Your task to perform on an android device: What's the weather today? Image 0: 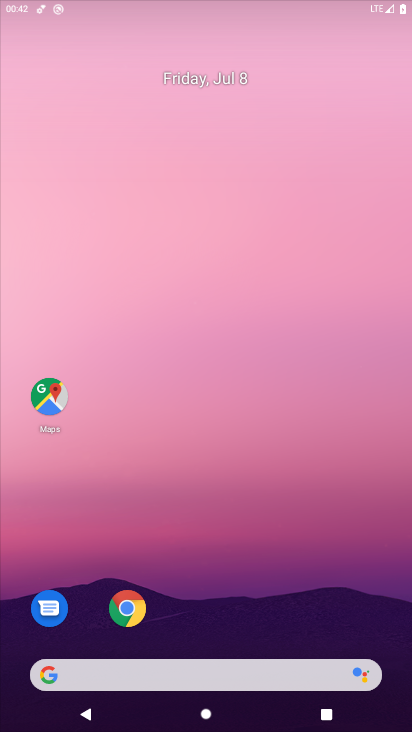
Step 0: press home button
Your task to perform on an android device: What's the weather today? Image 1: 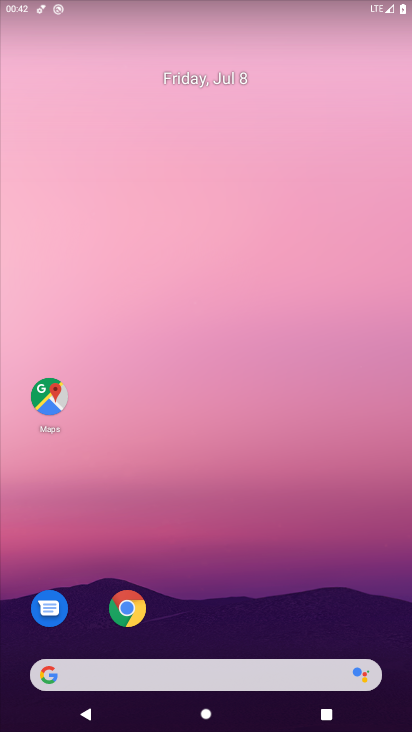
Step 1: drag from (291, 605) to (335, 137)
Your task to perform on an android device: What's the weather today? Image 2: 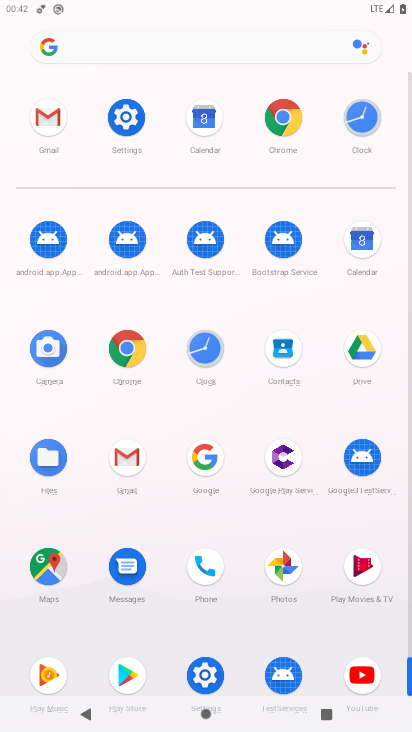
Step 2: click (294, 135)
Your task to perform on an android device: What's the weather today? Image 3: 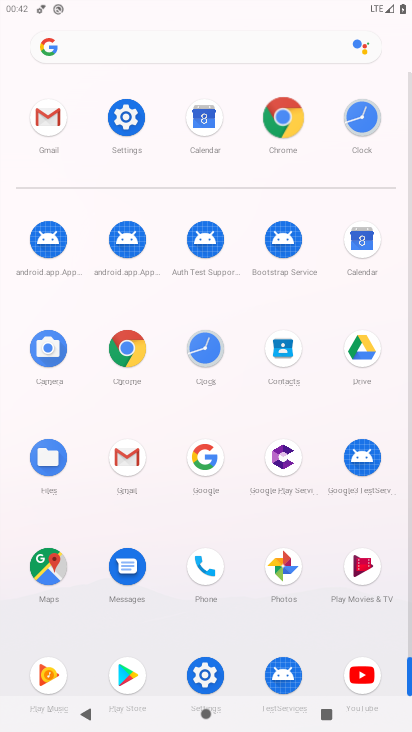
Step 3: drag from (80, 726) to (142, 730)
Your task to perform on an android device: What's the weather today? Image 4: 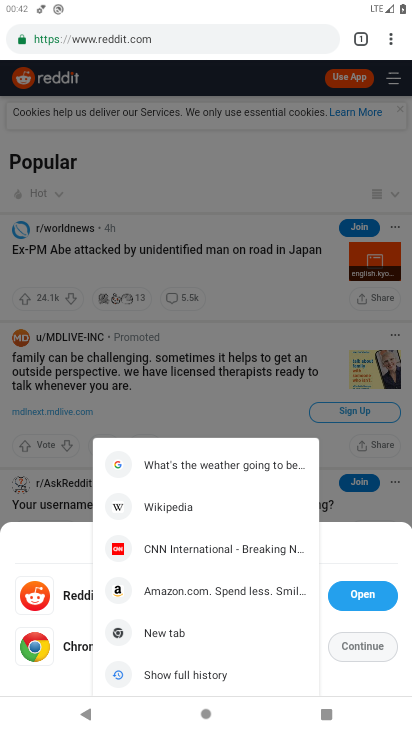
Step 4: click (17, 518)
Your task to perform on an android device: What's the weather today? Image 5: 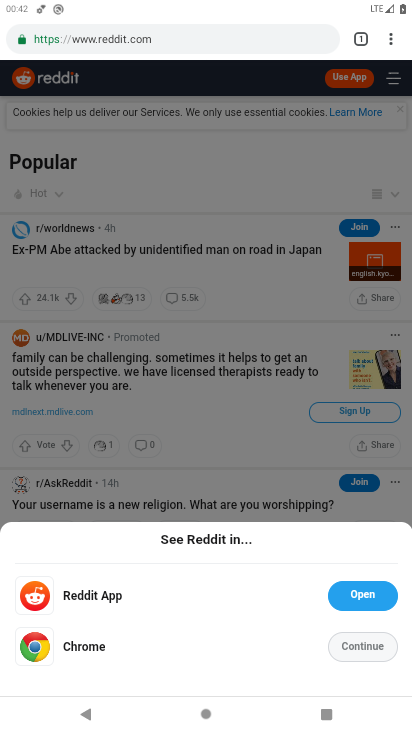
Step 5: click (187, 27)
Your task to perform on an android device: What's the weather today? Image 6: 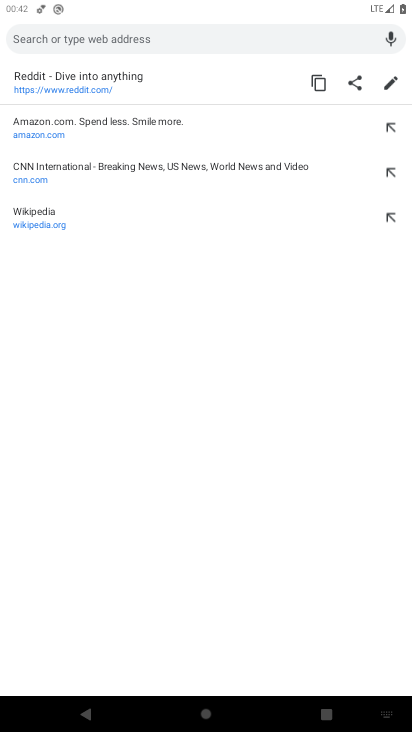
Step 6: type "What's the weather today?"
Your task to perform on an android device: What's the weather today? Image 7: 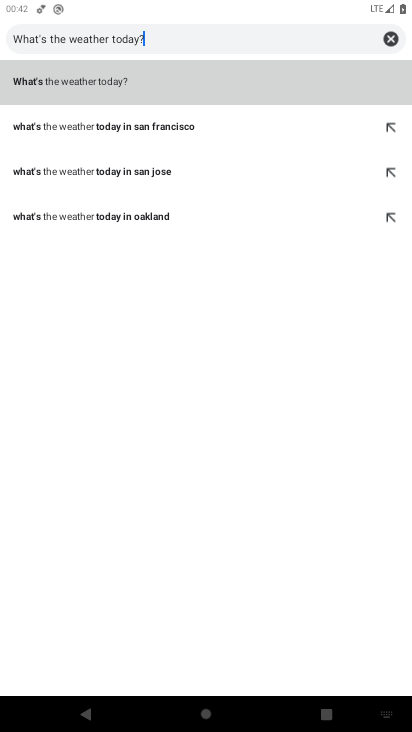
Step 7: click (384, 73)
Your task to perform on an android device: What's the weather today? Image 8: 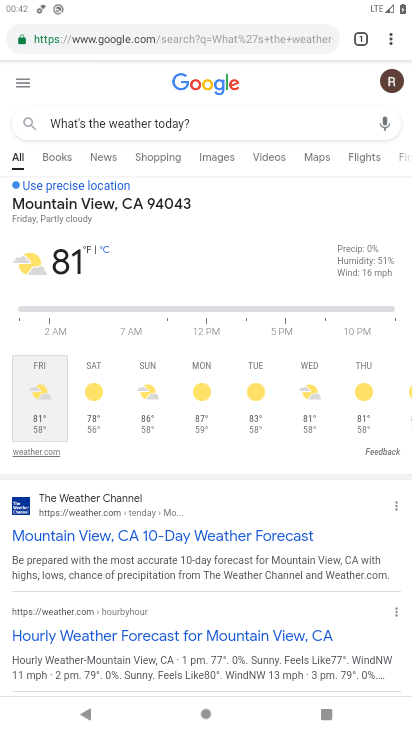
Step 8: task complete